Your task to perform on an android device: turn off sleep mode Image 0: 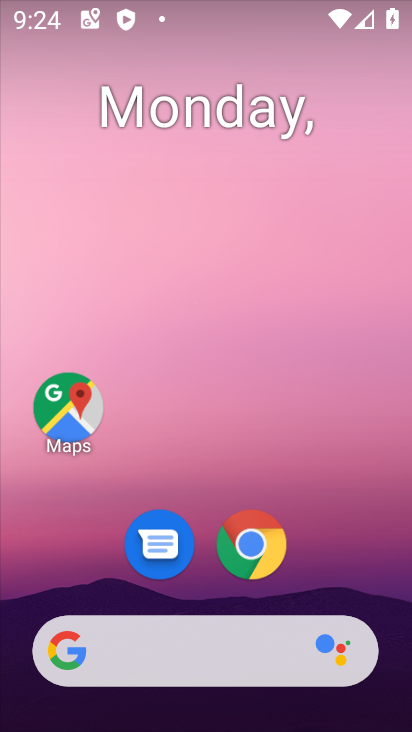
Step 0: drag from (301, 369) to (239, 81)
Your task to perform on an android device: turn off sleep mode Image 1: 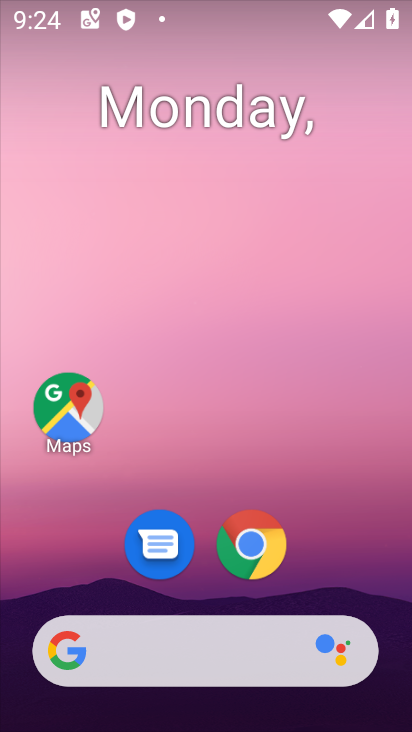
Step 1: drag from (353, 514) to (290, 2)
Your task to perform on an android device: turn off sleep mode Image 2: 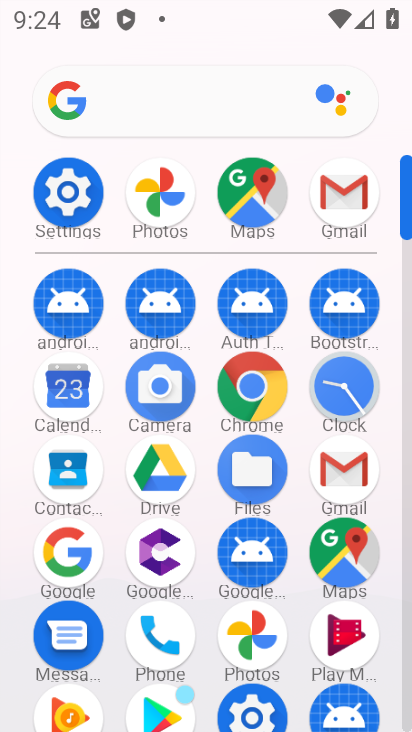
Step 2: click (61, 198)
Your task to perform on an android device: turn off sleep mode Image 3: 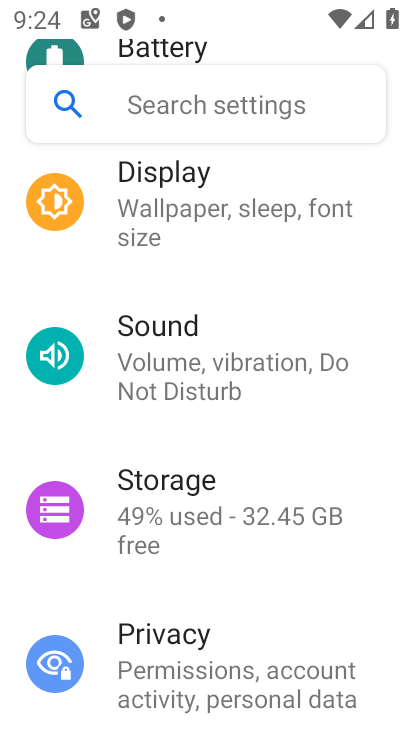
Step 3: click (177, 195)
Your task to perform on an android device: turn off sleep mode Image 4: 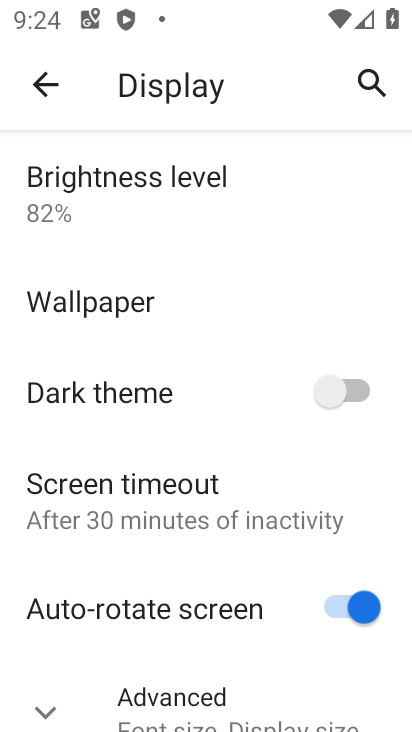
Step 4: task complete